Your task to perform on an android device: turn on notifications settings in the gmail app Image 0: 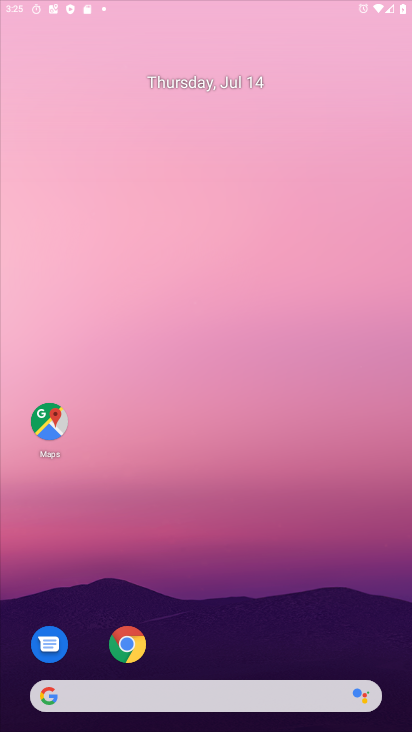
Step 0: click (106, 683)
Your task to perform on an android device: turn on notifications settings in the gmail app Image 1: 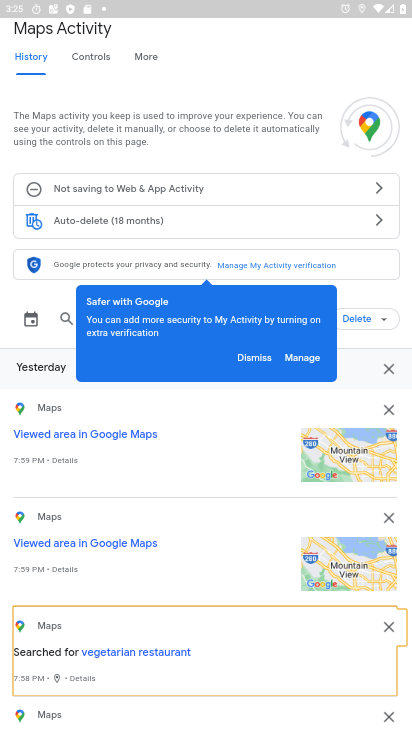
Step 1: press home button
Your task to perform on an android device: turn on notifications settings in the gmail app Image 2: 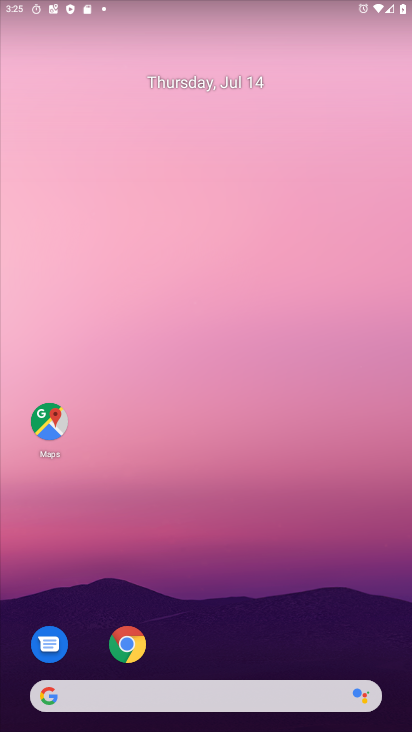
Step 2: drag from (31, 702) to (306, 223)
Your task to perform on an android device: turn on notifications settings in the gmail app Image 3: 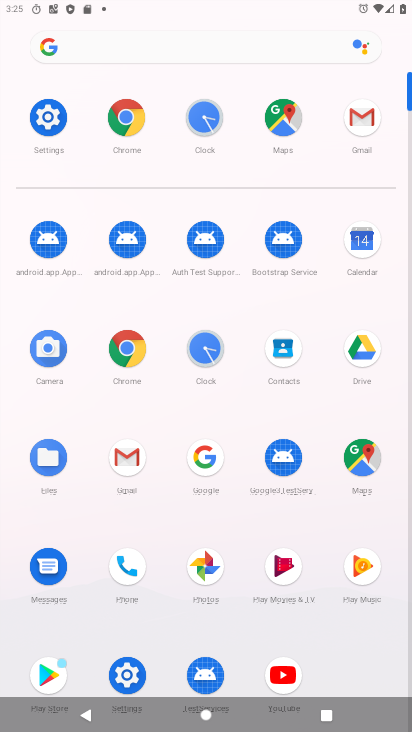
Step 3: click (130, 471)
Your task to perform on an android device: turn on notifications settings in the gmail app Image 4: 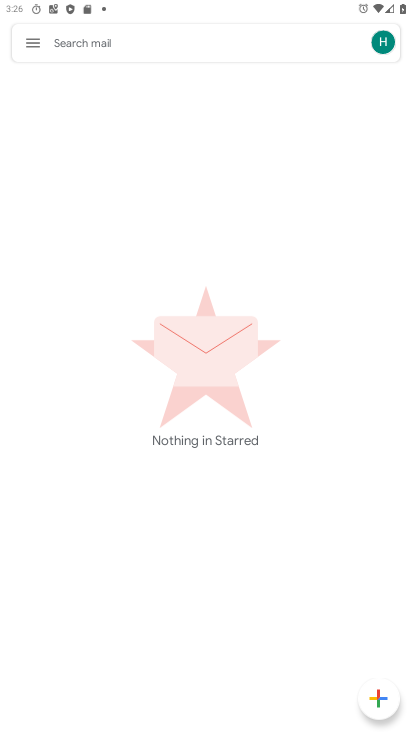
Step 4: click (38, 47)
Your task to perform on an android device: turn on notifications settings in the gmail app Image 5: 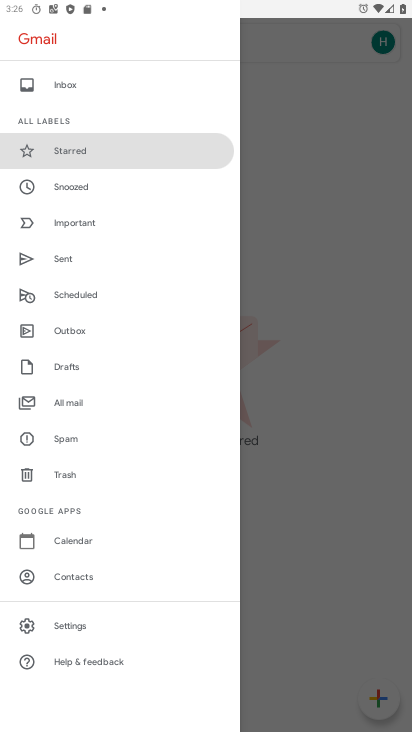
Step 5: click (89, 631)
Your task to perform on an android device: turn on notifications settings in the gmail app Image 6: 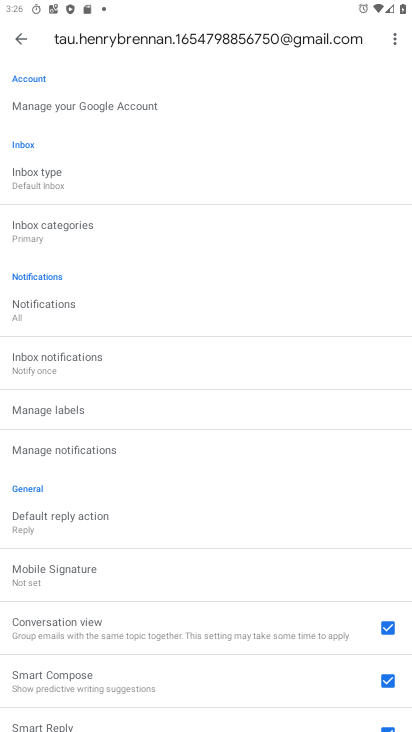
Step 6: click (29, 318)
Your task to perform on an android device: turn on notifications settings in the gmail app Image 7: 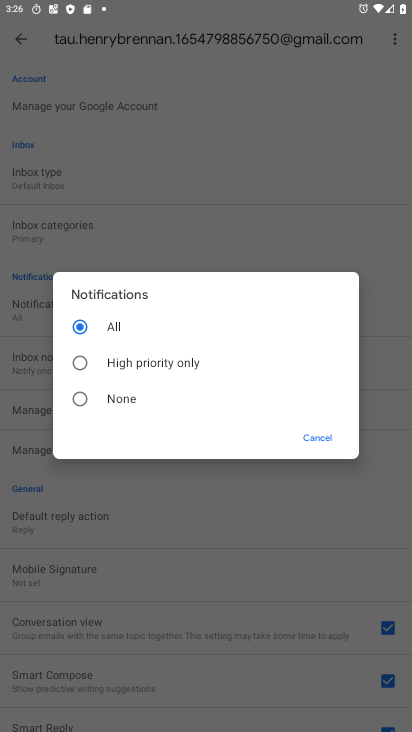
Step 7: click (236, 205)
Your task to perform on an android device: turn on notifications settings in the gmail app Image 8: 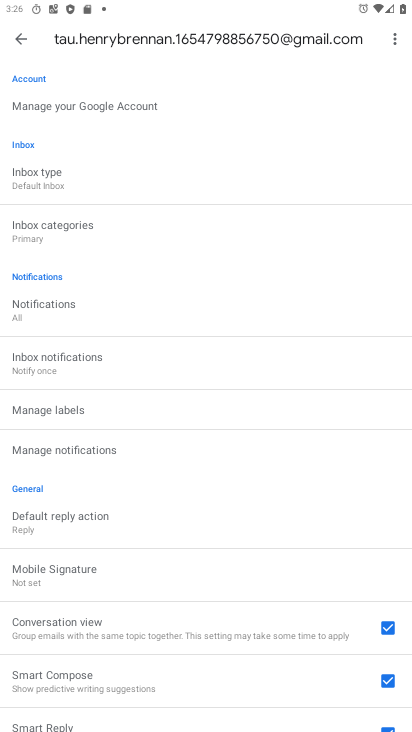
Step 8: task complete